Your task to perform on an android device: turn off translation in the chrome app Image 0: 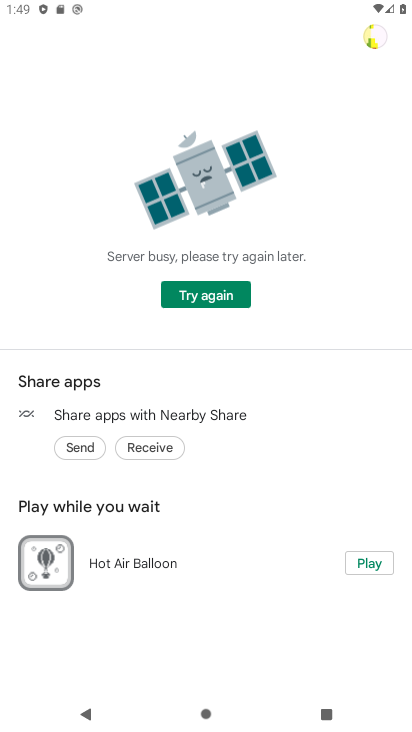
Step 0: press home button
Your task to perform on an android device: turn off translation in the chrome app Image 1: 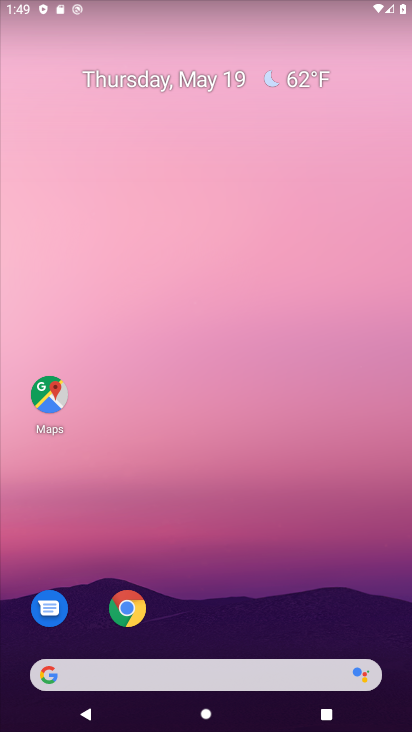
Step 1: drag from (303, 638) to (225, 61)
Your task to perform on an android device: turn off translation in the chrome app Image 2: 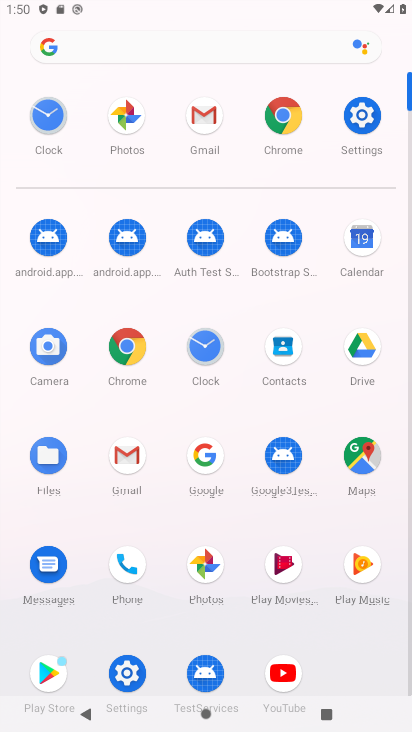
Step 2: click (285, 119)
Your task to perform on an android device: turn off translation in the chrome app Image 3: 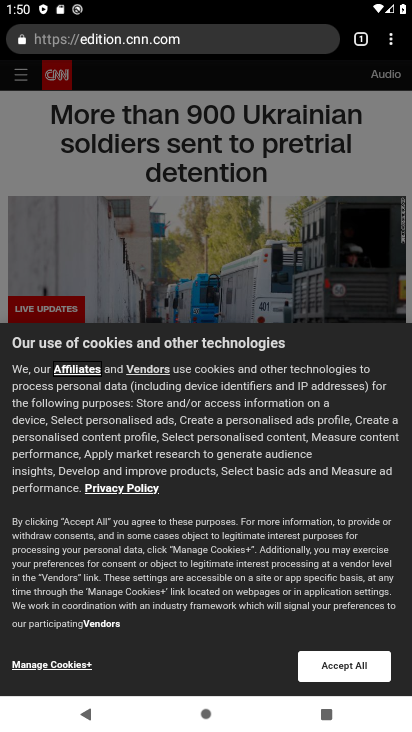
Step 3: click (391, 53)
Your task to perform on an android device: turn off translation in the chrome app Image 4: 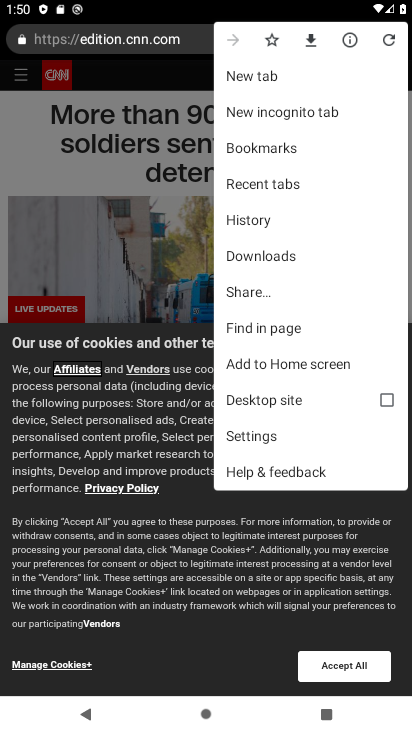
Step 4: click (288, 429)
Your task to perform on an android device: turn off translation in the chrome app Image 5: 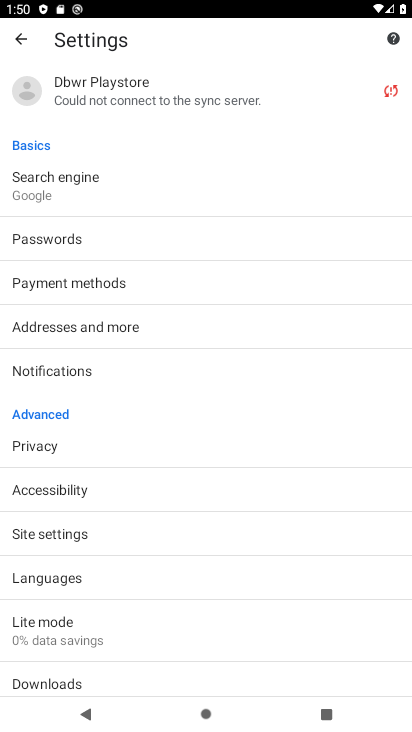
Step 5: drag from (192, 609) to (197, 459)
Your task to perform on an android device: turn off translation in the chrome app Image 6: 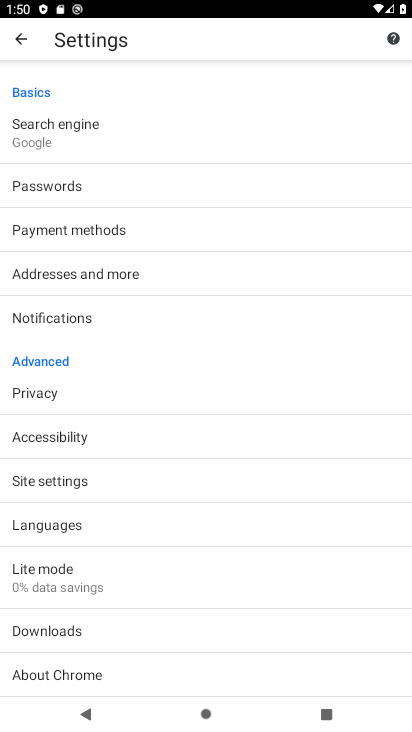
Step 6: click (92, 534)
Your task to perform on an android device: turn off translation in the chrome app Image 7: 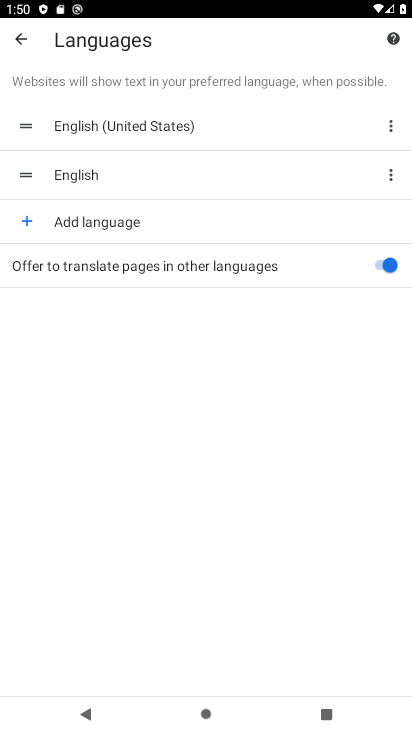
Step 7: click (348, 251)
Your task to perform on an android device: turn off translation in the chrome app Image 8: 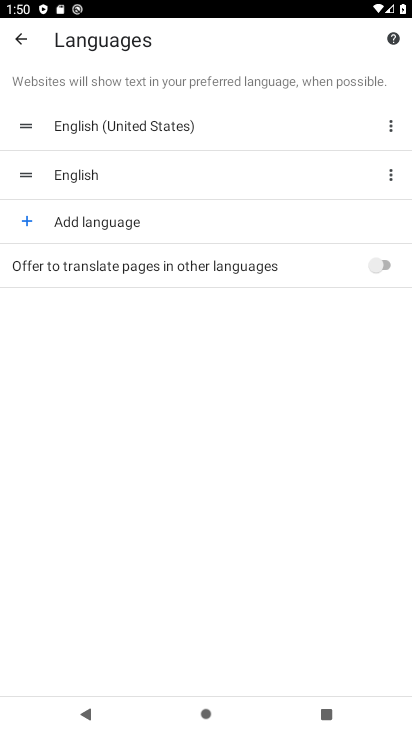
Step 8: task complete